Your task to perform on an android device: Go to CNN.com Image 0: 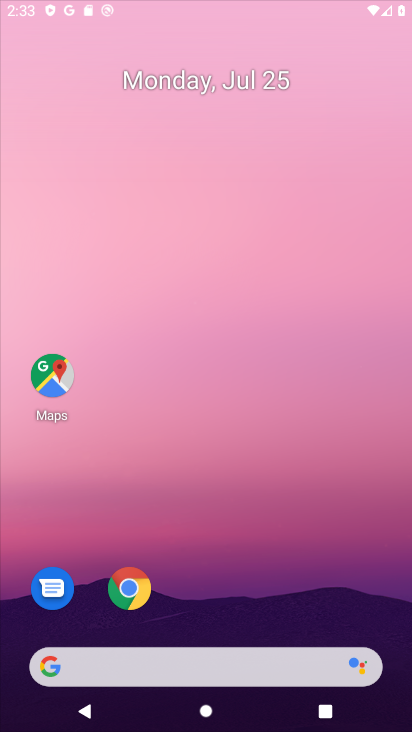
Step 0: press home button
Your task to perform on an android device: Go to CNN.com Image 1: 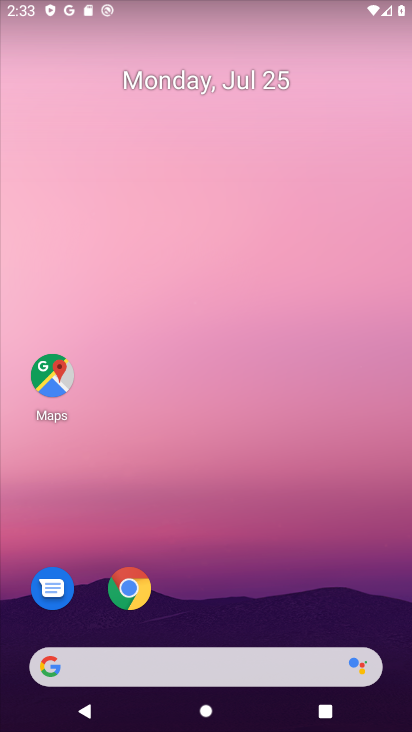
Step 1: click (126, 581)
Your task to perform on an android device: Go to CNN.com Image 2: 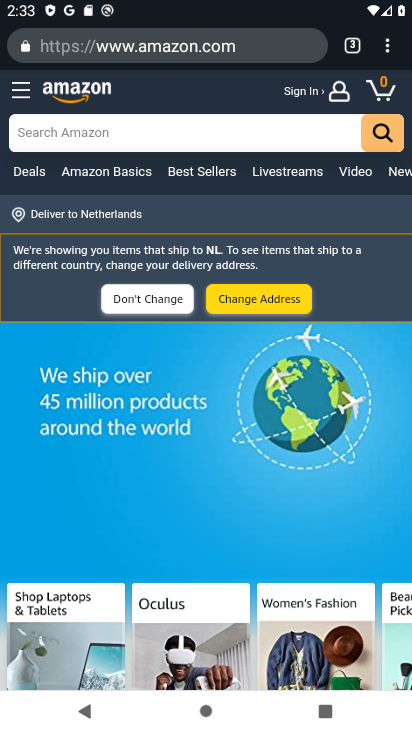
Step 2: click (349, 41)
Your task to perform on an android device: Go to CNN.com Image 3: 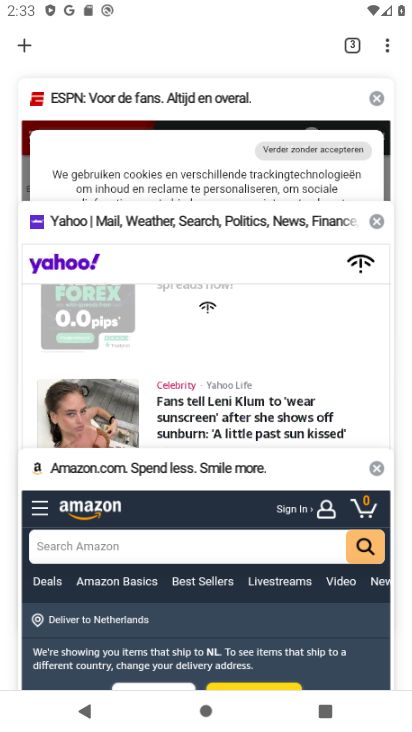
Step 3: click (28, 46)
Your task to perform on an android device: Go to CNN.com Image 4: 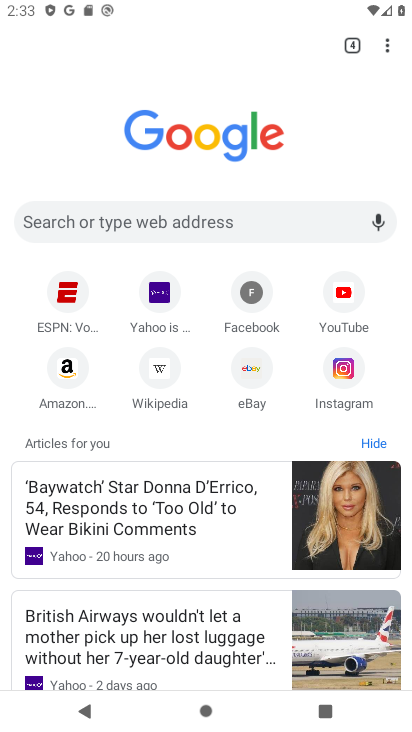
Step 4: click (129, 221)
Your task to perform on an android device: Go to CNN.com Image 5: 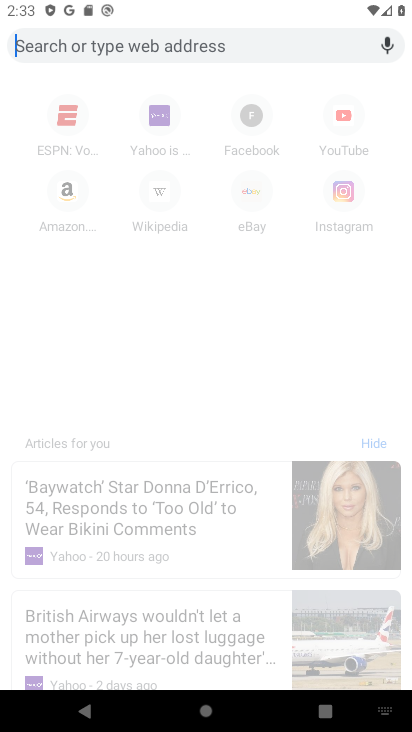
Step 5: type "cnn.com"
Your task to perform on an android device: Go to CNN.com Image 6: 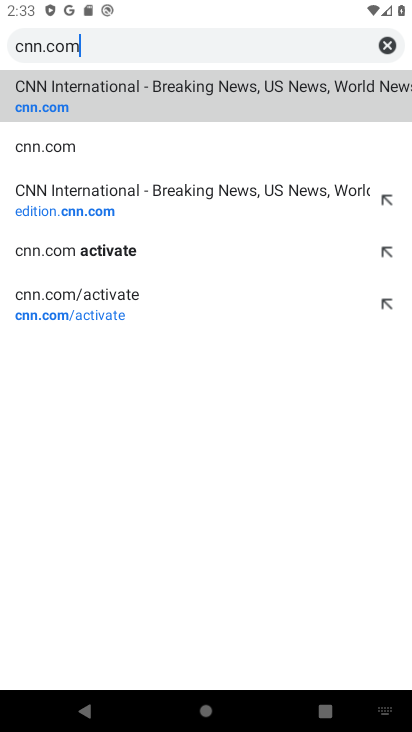
Step 6: click (85, 102)
Your task to perform on an android device: Go to CNN.com Image 7: 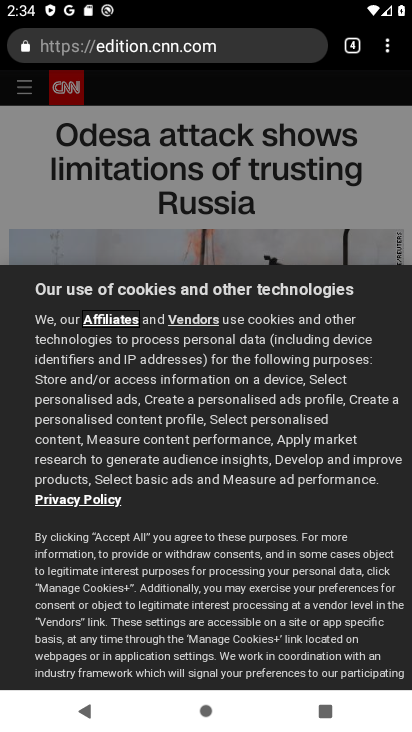
Step 7: drag from (223, 636) to (202, 300)
Your task to perform on an android device: Go to CNN.com Image 8: 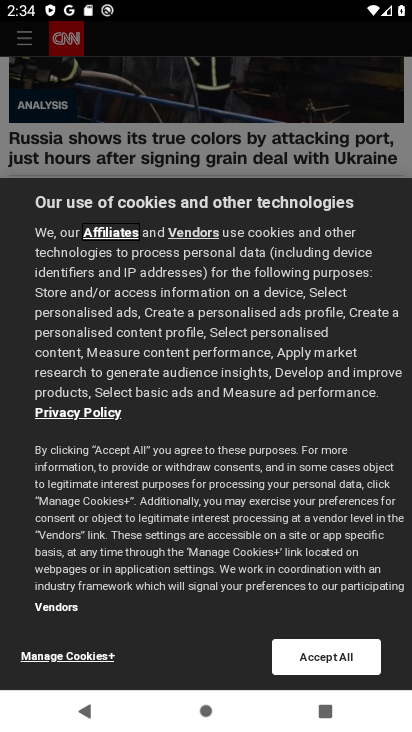
Step 8: click (319, 660)
Your task to perform on an android device: Go to CNN.com Image 9: 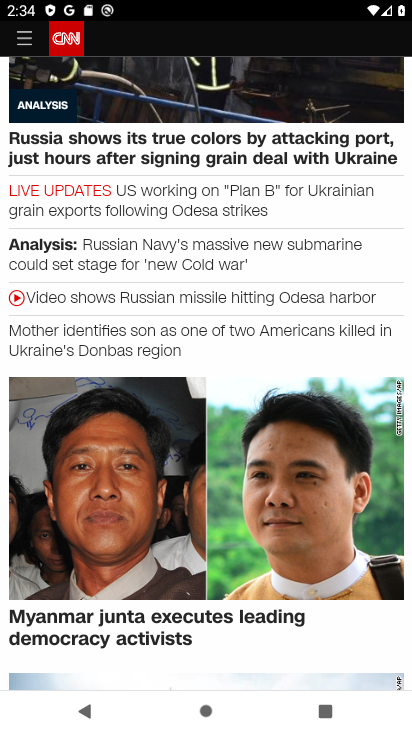
Step 9: task complete